Your task to perform on an android device: turn on location history Image 0: 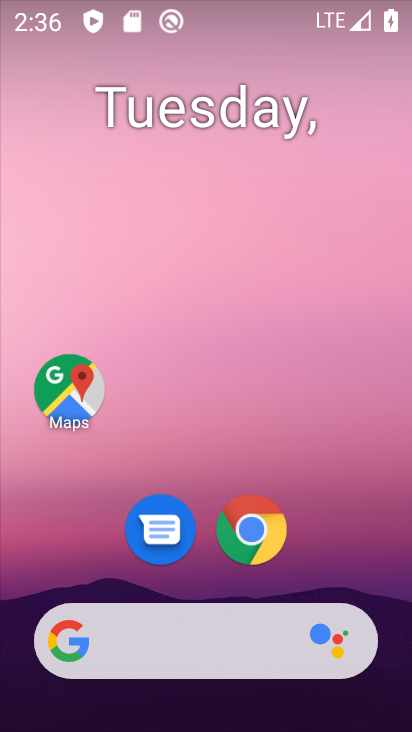
Step 0: drag from (391, 637) to (261, 110)
Your task to perform on an android device: turn on location history Image 1: 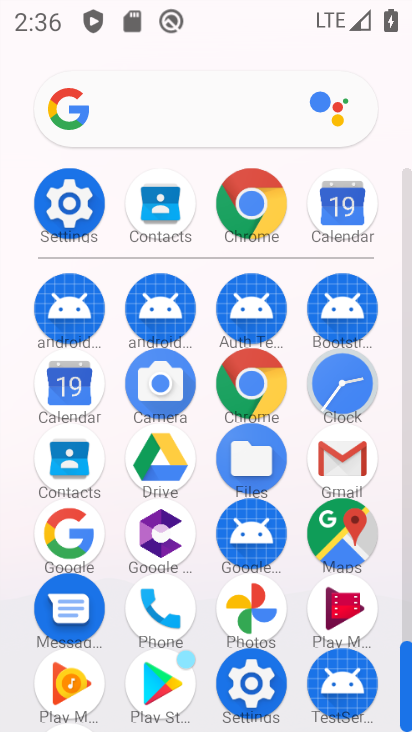
Step 1: click (58, 213)
Your task to perform on an android device: turn on location history Image 2: 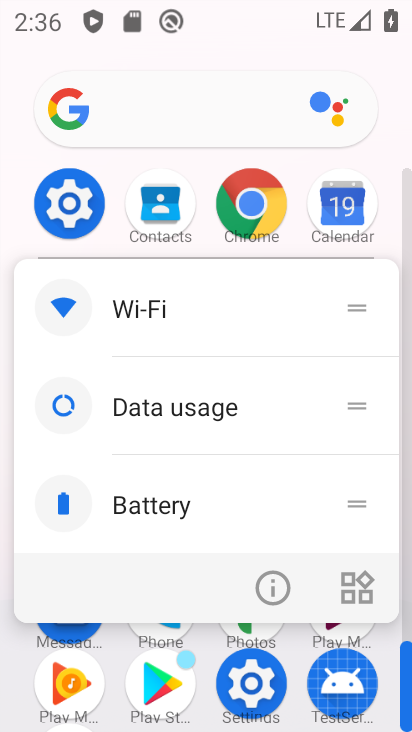
Step 2: click (75, 191)
Your task to perform on an android device: turn on location history Image 3: 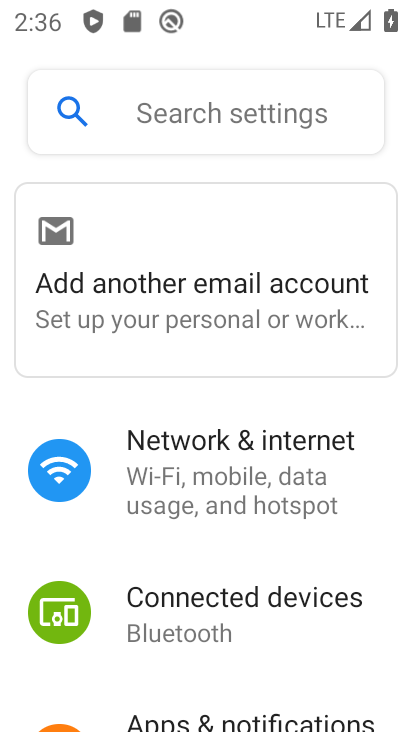
Step 3: drag from (186, 634) to (170, 235)
Your task to perform on an android device: turn on location history Image 4: 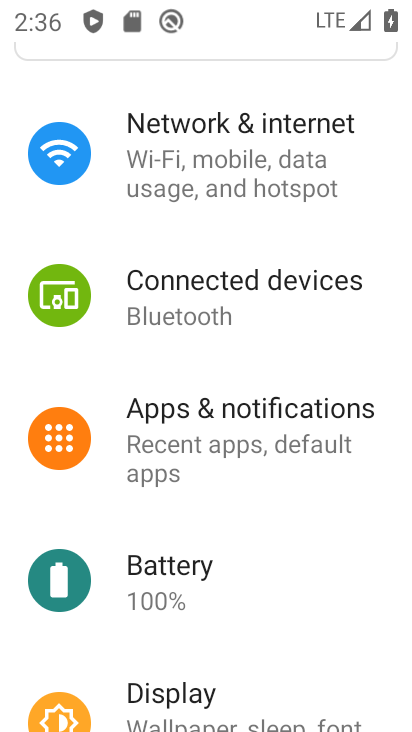
Step 4: drag from (226, 621) to (195, 244)
Your task to perform on an android device: turn on location history Image 5: 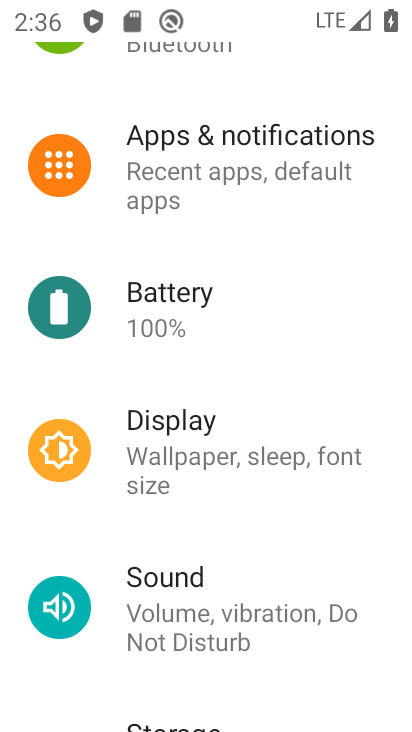
Step 5: drag from (197, 550) to (147, 208)
Your task to perform on an android device: turn on location history Image 6: 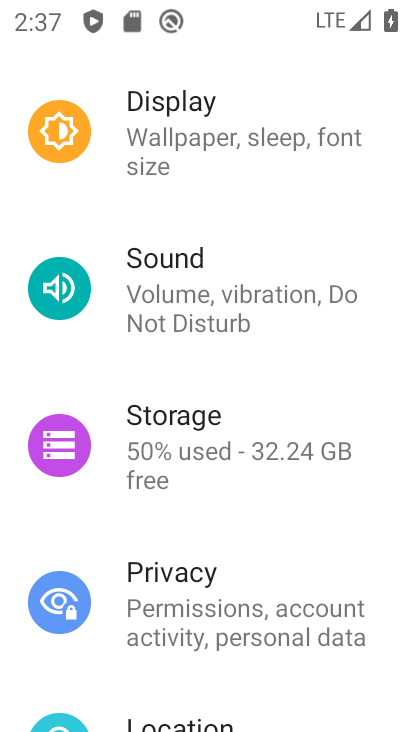
Step 6: drag from (197, 589) to (191, 215)
Your task to perform on an android device: turn on location history Image 7: 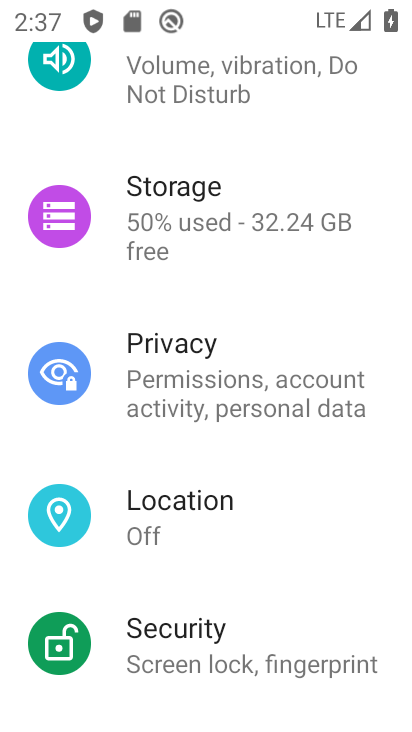
Step 7: click (150, 534)
Your task to perform on an android device: turn on location history Image 8: 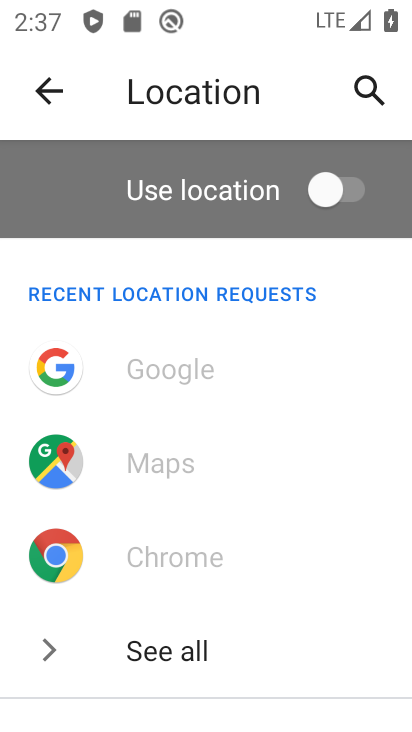
Step 8: drag from (234, 625) to (214, 241)
Your task to perform on an android device: turn on location history Image 9: 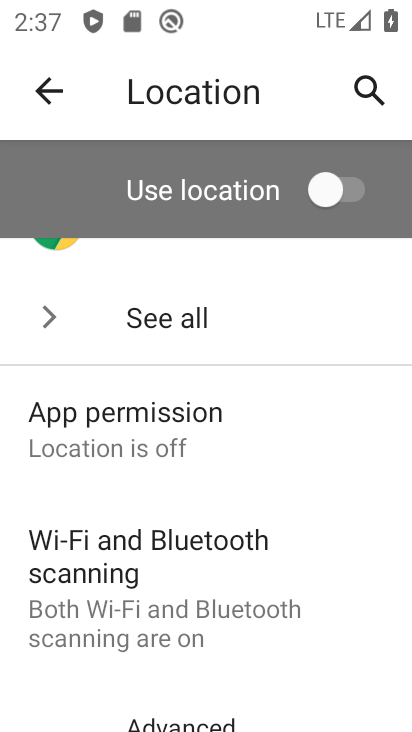
Step 9: drag from (233, 611) to (231, 236)
Your task to perform on an android device: turn on location history Image 10: 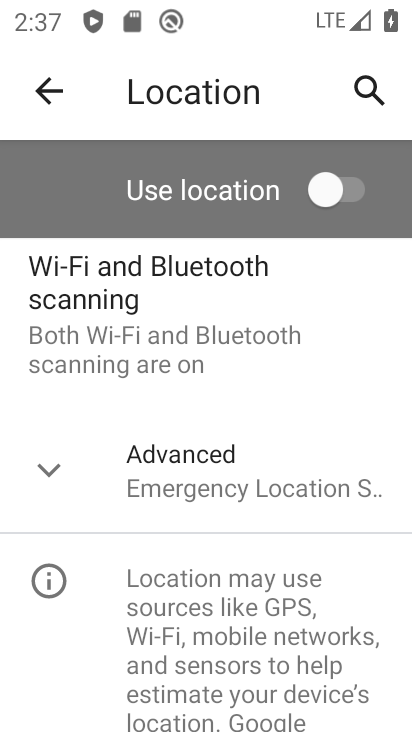
Step 10: click (65, 472)
Your task to perform on an android device: turn on location history Image 11: 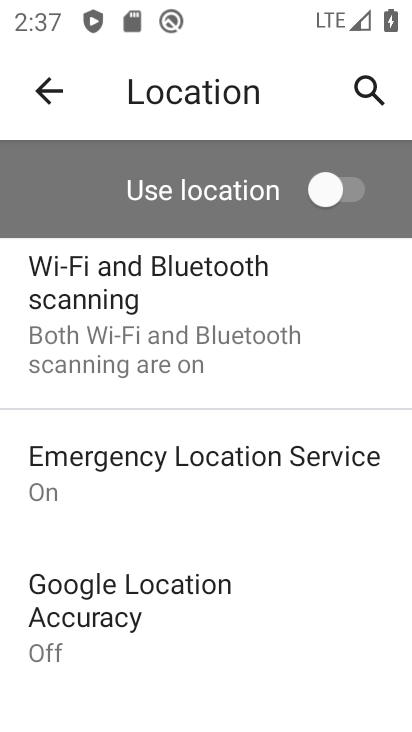
Step 11: drag from (186, 656) to (209, 278)
Your task to perform on an android device: turn on location history Image 12: 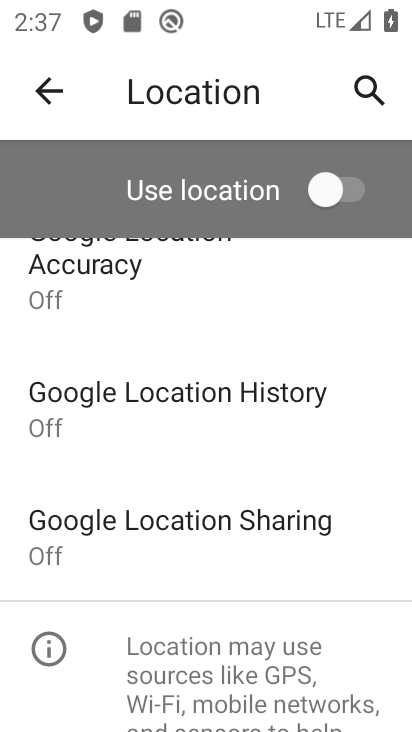
Step 12: click (178, 430)
Your task to perform on an android device: turn on location history Image 13: 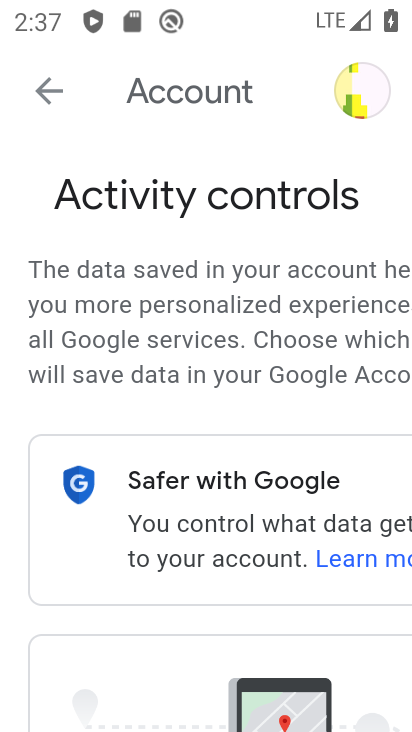
Step 13: drag from (329, 621) to (194, 155)
Your task to perform on an android device: turn on location history Image 14: 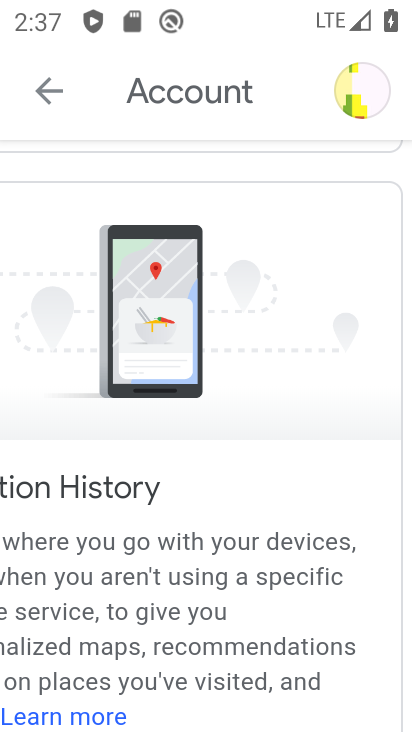
Step 14: drag from (276, 611) to (237, 223)
Your task to perform on an android device: turn on location history Image 15: 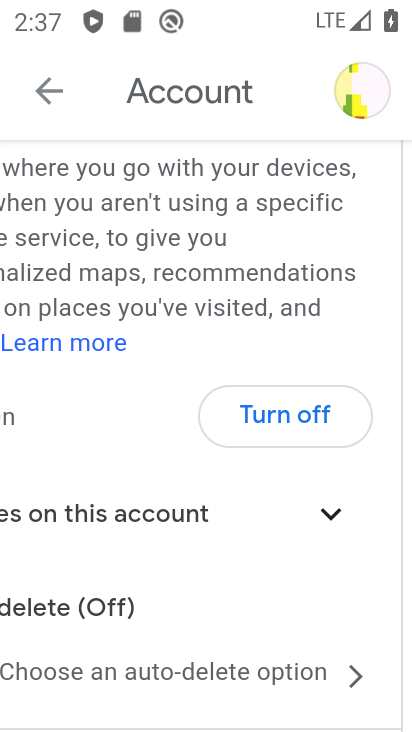
Step 15: click (277, 422)
Your task to perform on an android device: turn on location history Image 16: 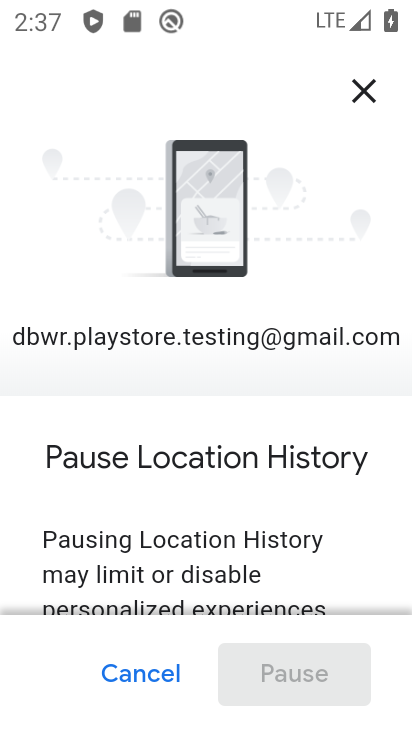
Step 16: task complete